Your task to perform on an android device: Show me popular games on the Play Store Image 0: 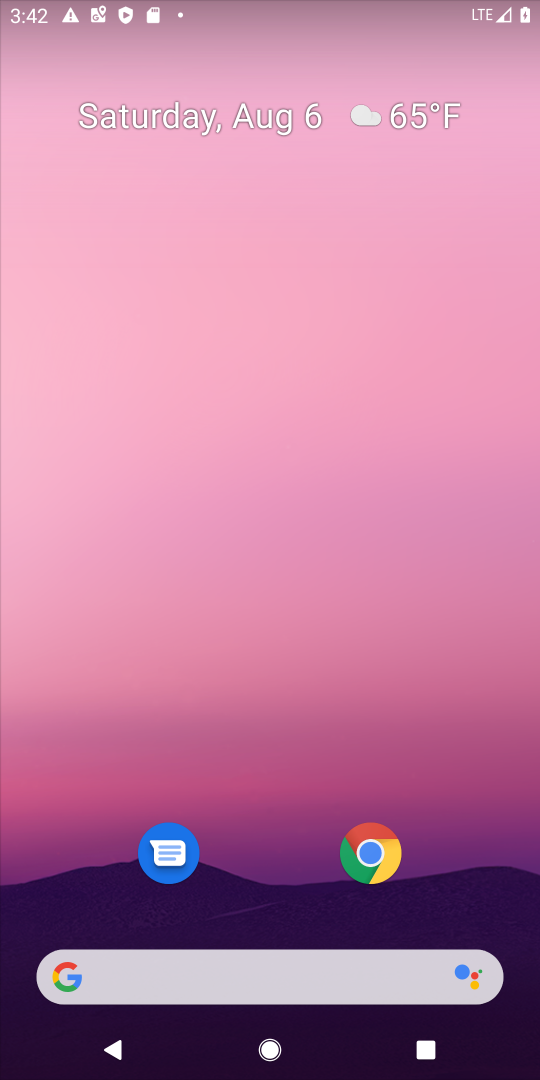
Step 0: drag from (230, 863) to (294, 91)
Your task to perform on an android device: Show me popular games on the Play Store Image 1: 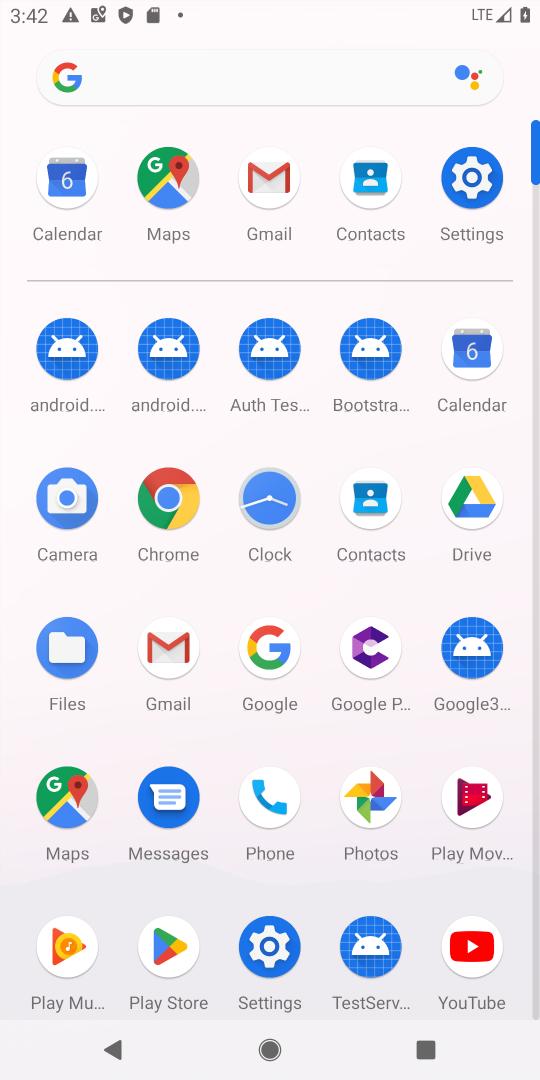
Step 1: click (182, 941)
Your task to perform on an android device: Show me popular games on the Play Store Image 2: 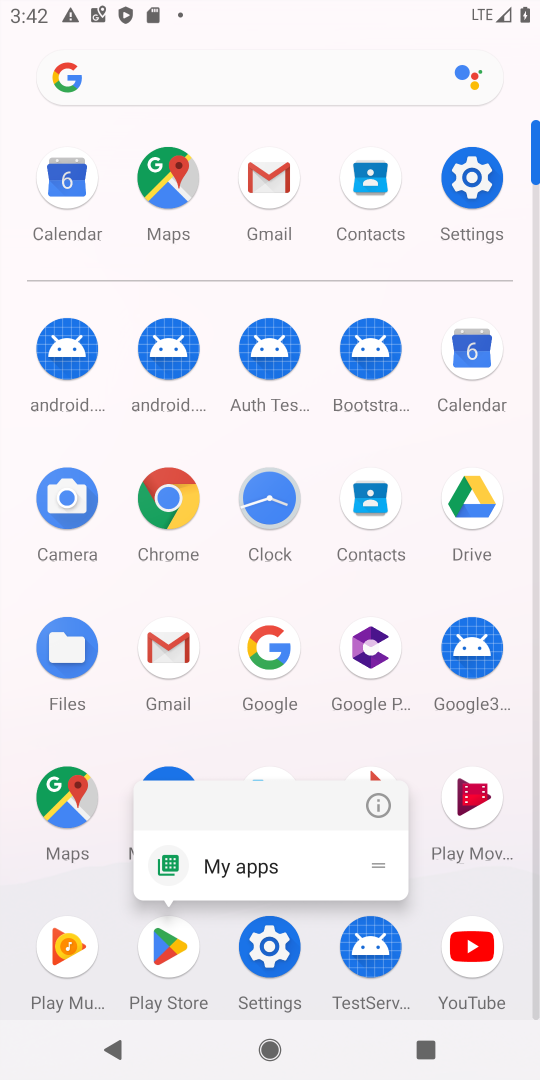
Step 2: click (168, 939)
Your task to perform on an android device: Show me popular games on the Play Store Image 3: 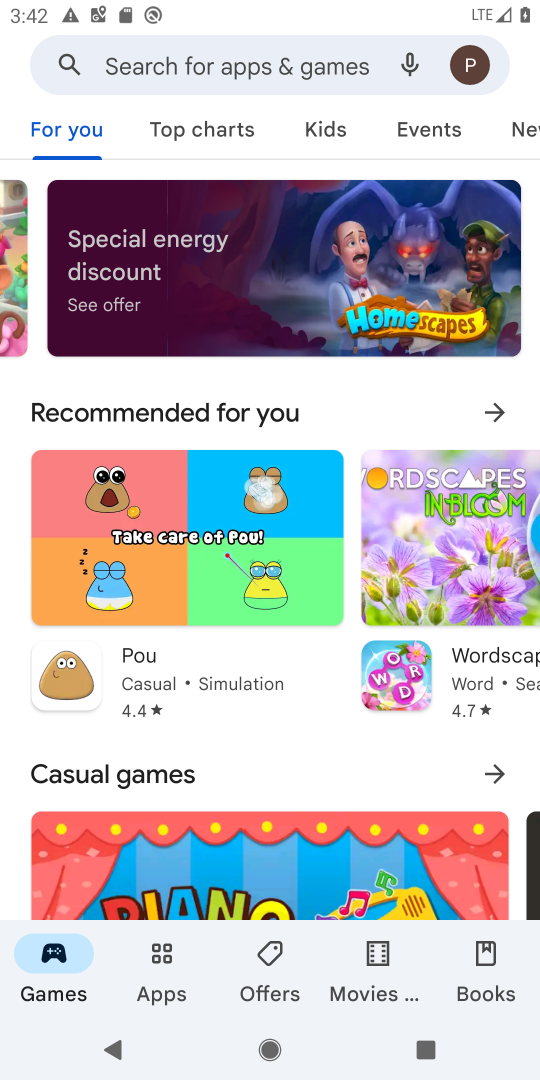
Step 3: drag from (284, 835) to (354, 193)
Your task to perform on an android device: Show me popular games on the Play Store Image 4: 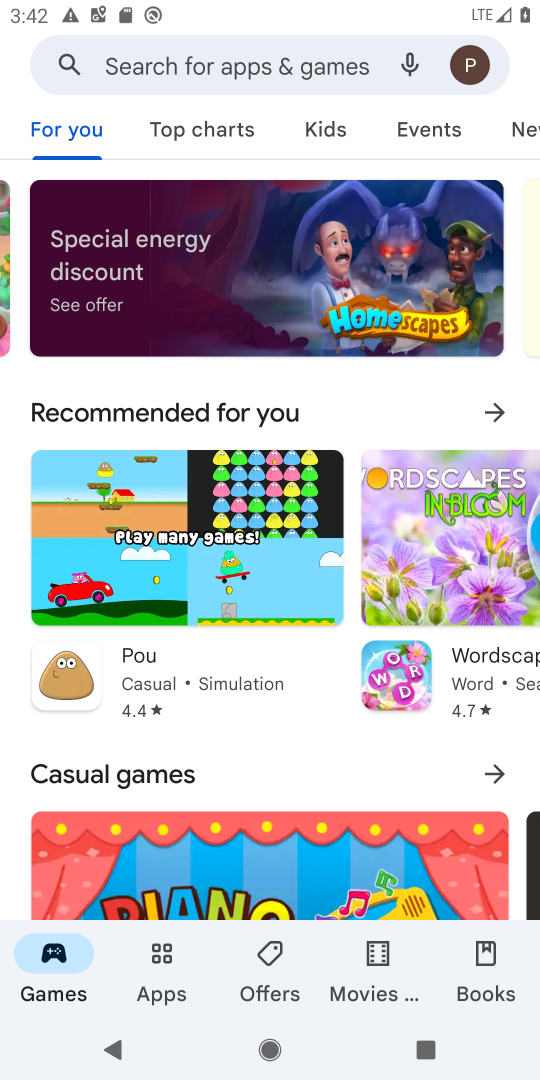
Step 4: drag from (186, 821) to (294, 119)
Your task to perform on an android device: Show me popular games on the Play Store Image 5: 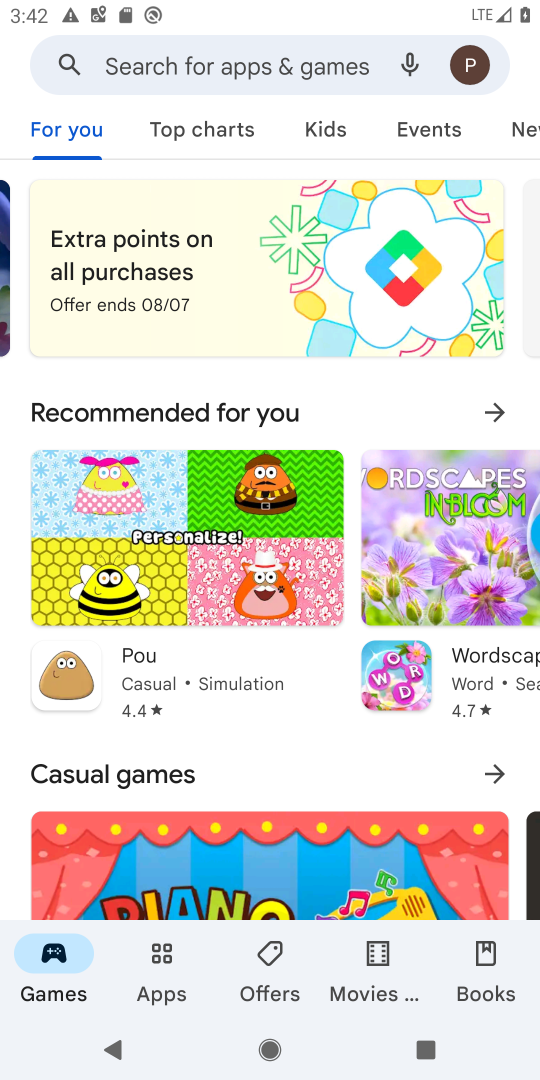
Step 5: drag from (8, 833) to (50, 231)
Your task to perform on an android device: Show me popular games on the Play Store Image 6: 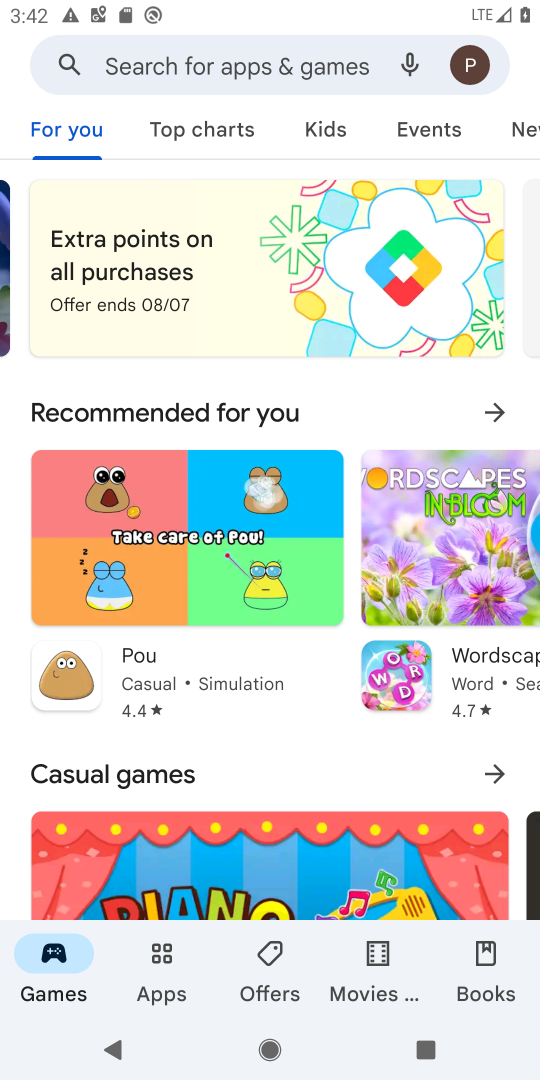
Step 6: drag from (19, 878) to (19, 210)
Your task to perform on an android device: Show me popular games on the Play Store Image 7: 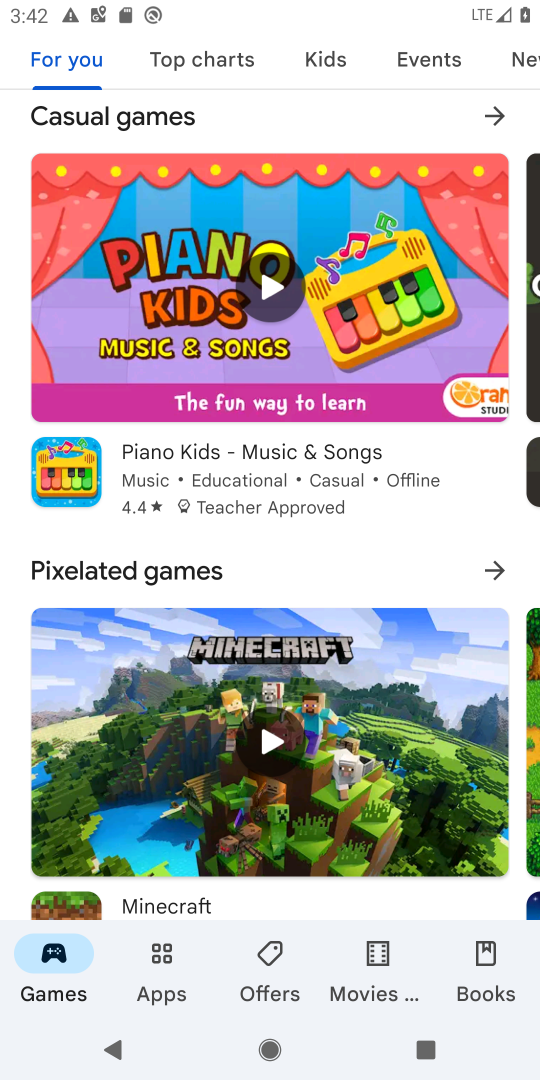
Step 7: drag from (27, 804) to (55, 254)
Your task to perform on an android device: Show me popular games on the Play Store Image 8: 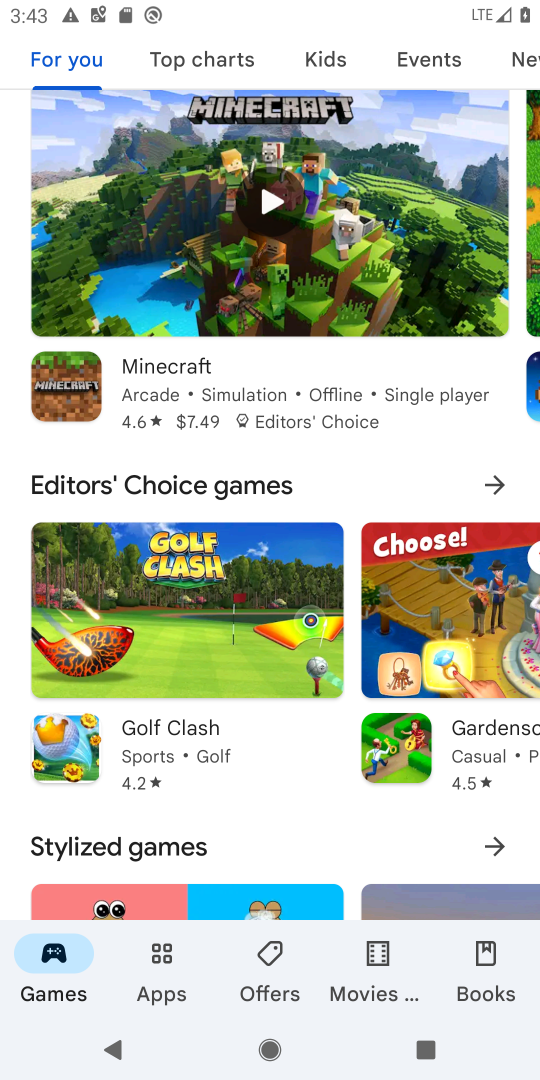
Step 8: drag from (6, 845) to (5, 247)
Your task to perform on an android device: Show me popular games on the Play Store Image 9: 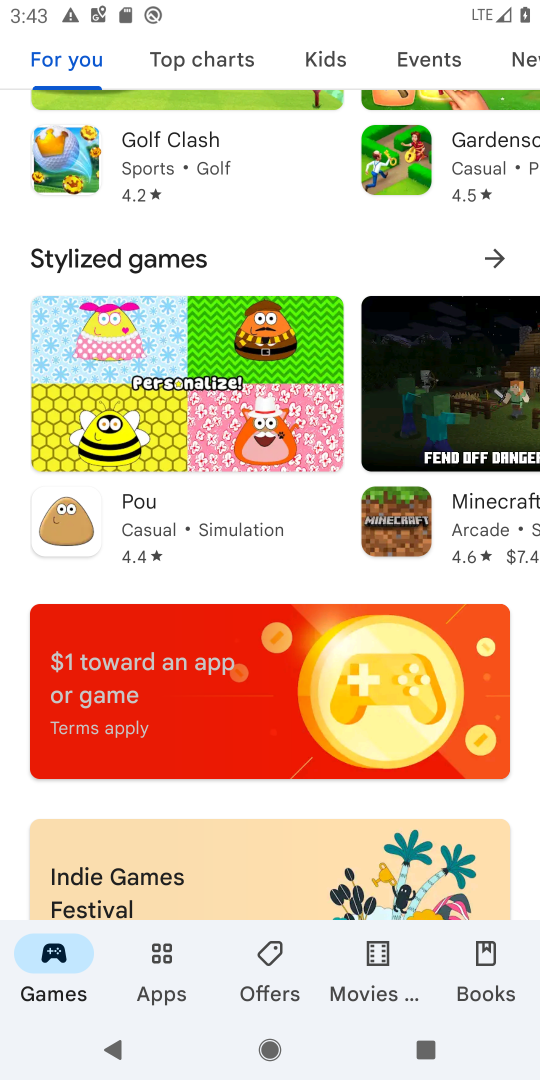
Step 9: drag from (6, 802) to (22, 372)
Your task to perform on an android device: Show me popular games on the Play Store Image 10: 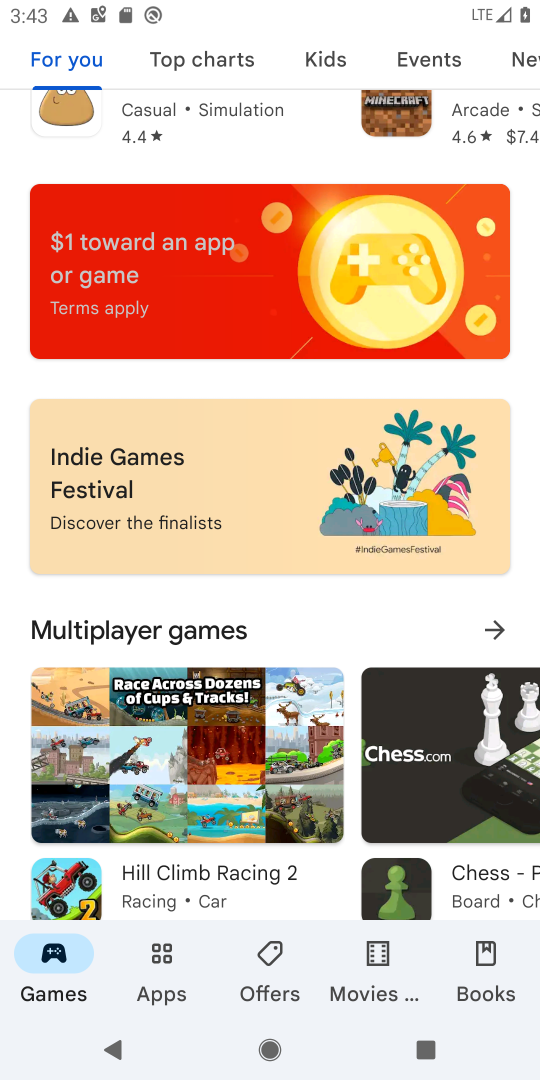
Step 10: drag from (11, 882) to (25, 234)
Your task to perform on an android device: Show me popular games on the Play Store Image 11: 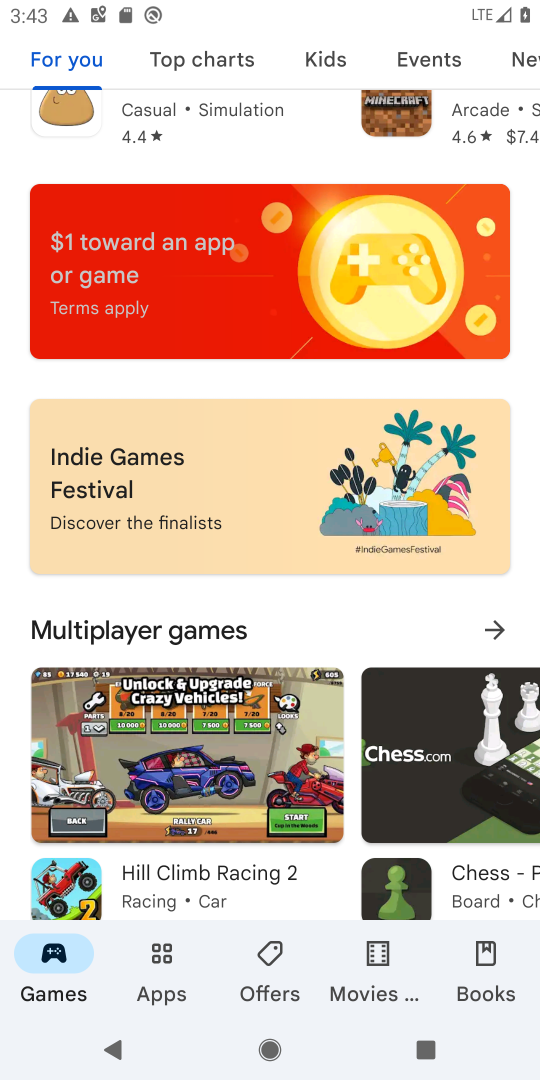
Step 11: drag from (1, 853) to (1, 167)
Your task to perform on an android device: Show me popular games on the Play Store Image 12: 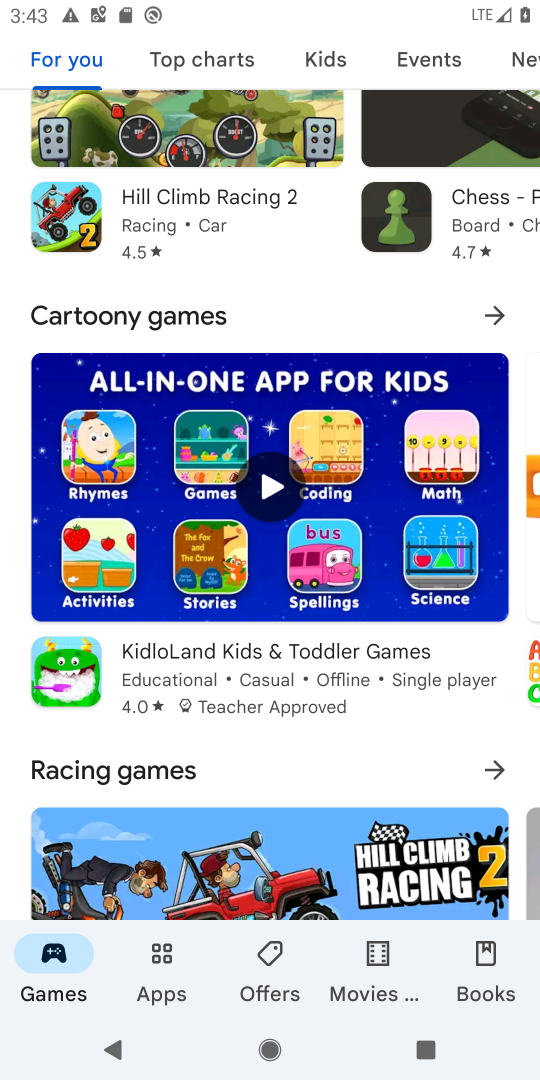
Step 12: drag from (16, 862) to (34, 151)
Your task to perform on an android device: Show me popular games on the Play Store Image 13: 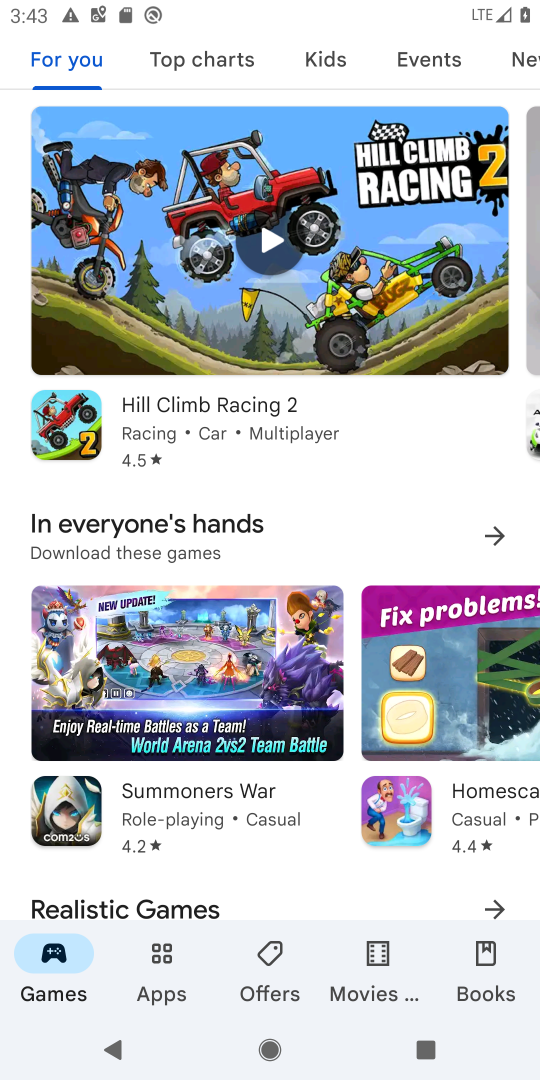
Step 13: drag from (18, 888) to (1, 165)
Your task to perform on an android device: Show me popular games on the Play Store Image 14: 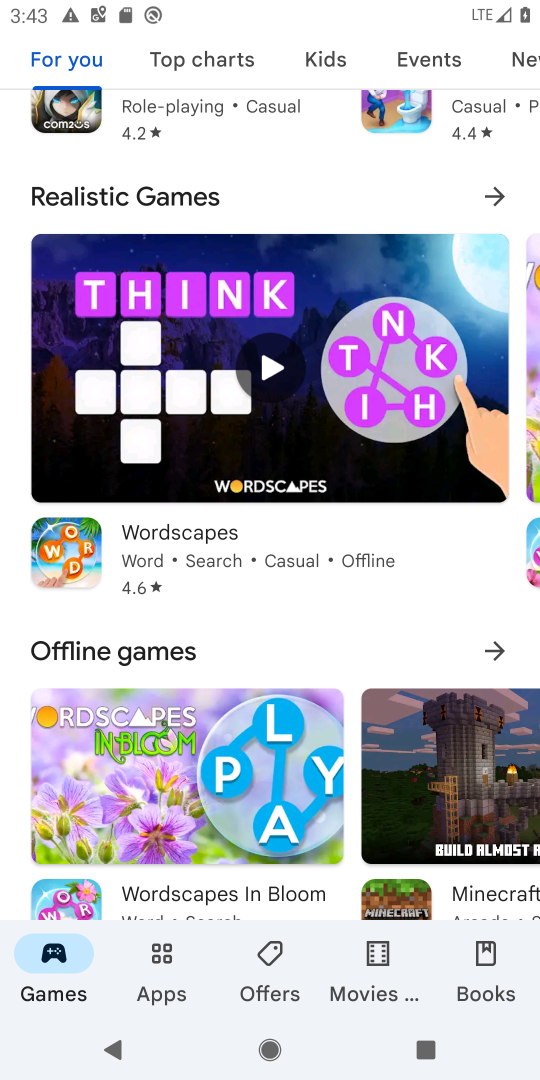
Step 14: drag from (10, 858) to (26, 182)
Your task to perform on an android device: Show me popular games on the Play Store Image 15: 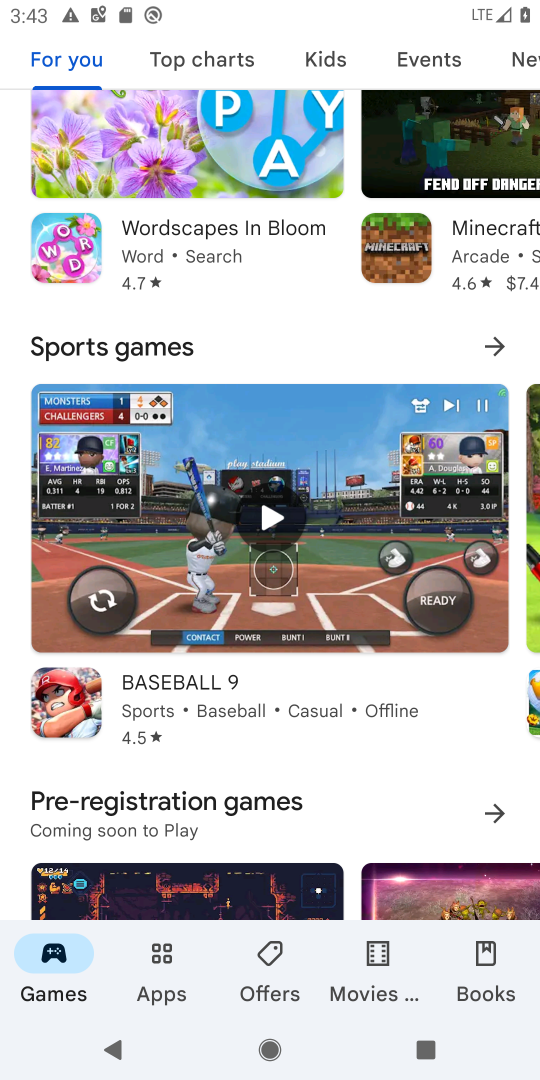
Step 15: drag from (10, 892) to (2, 254)
Your task to perform on an android device: Show me popular games on the Play Store Image 16: 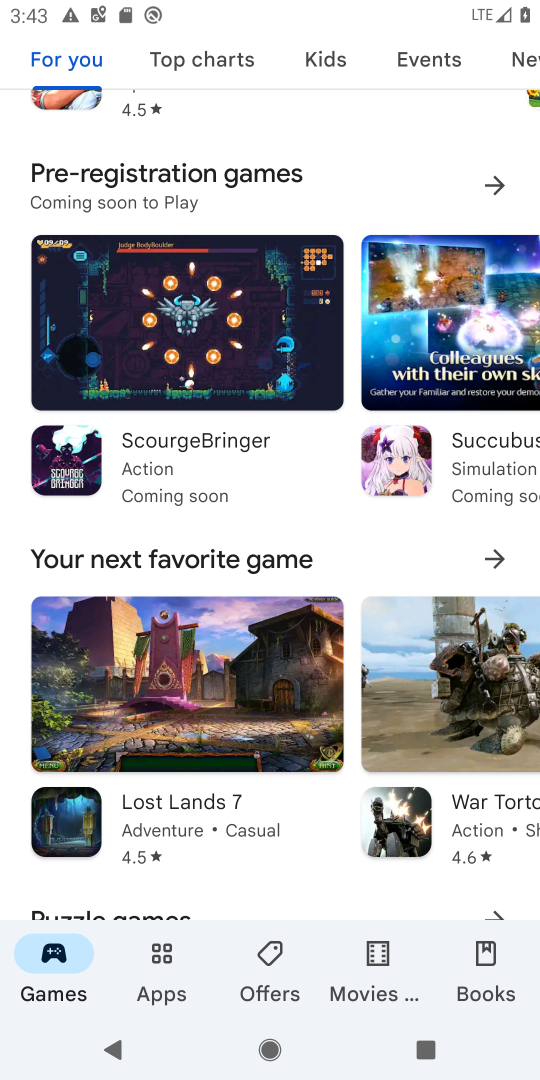
Step 16: drag from (11, 897) to (43, 174)
Your task to perform on an android device: Show me popular games on the Play Store Image 17: 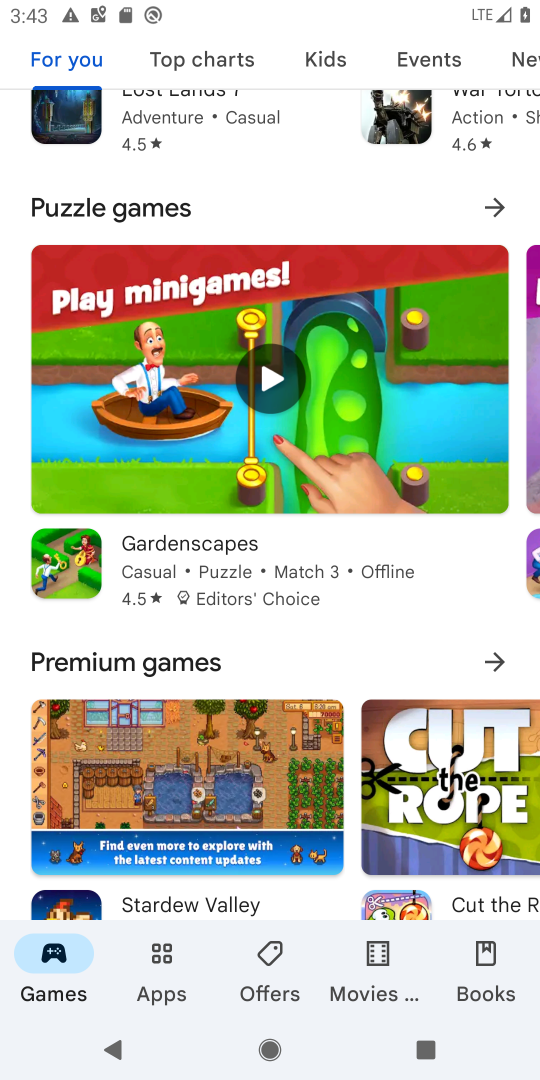
Step 17: drag from (12, 894) to (25, 201)
Your task to perform on an android device: Show me popular games on the Play Store Image 18: 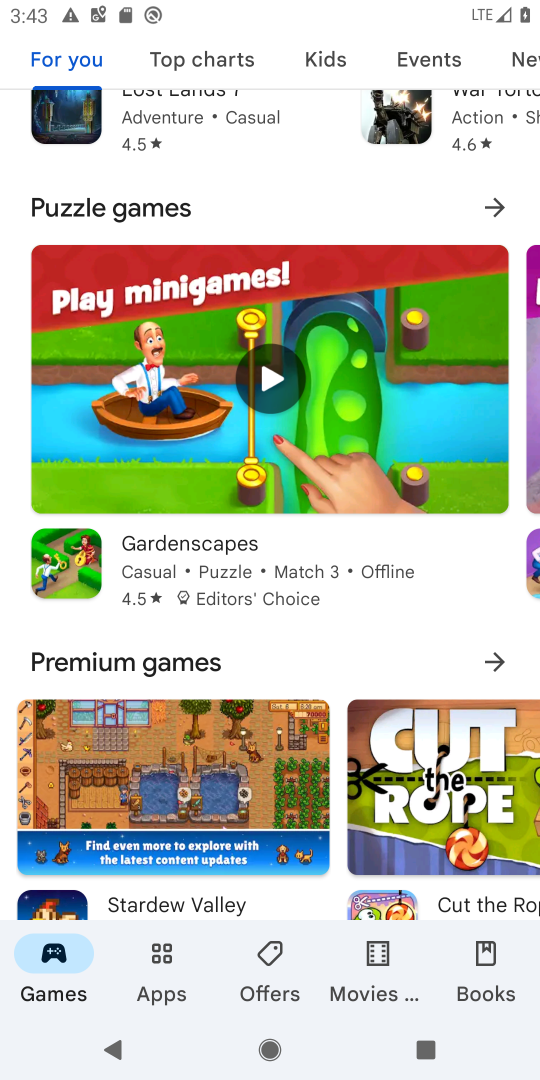
Step 18: drag from (14, 827) to (17, 293)
Your task to perform on an android device: Show me popular games on the Play Store Image 19: 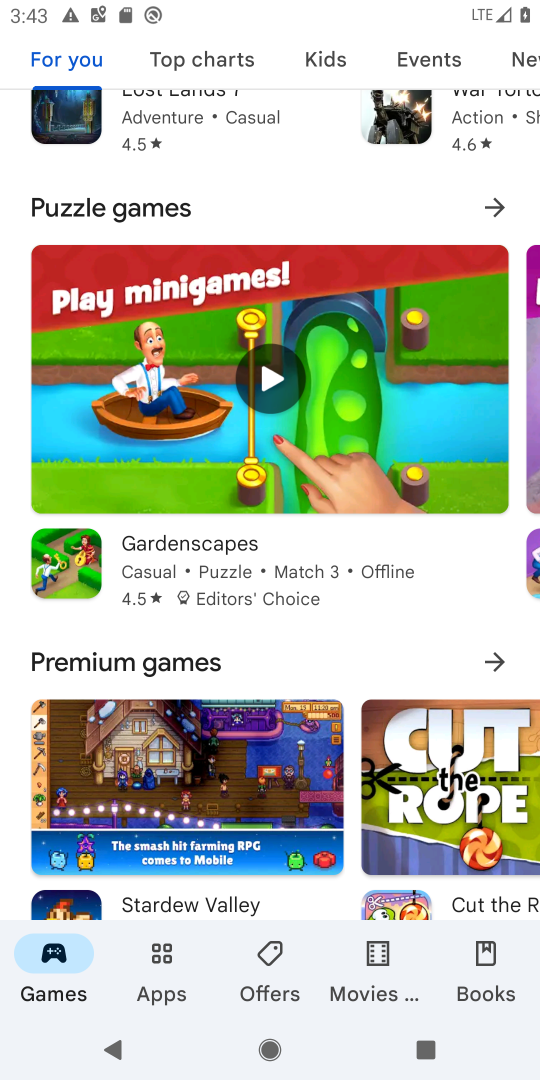
Step 19: drag from (13, 805) to (34, 180)
Your task to perform on an android device: Show me popular games on the Play Store Image 20: 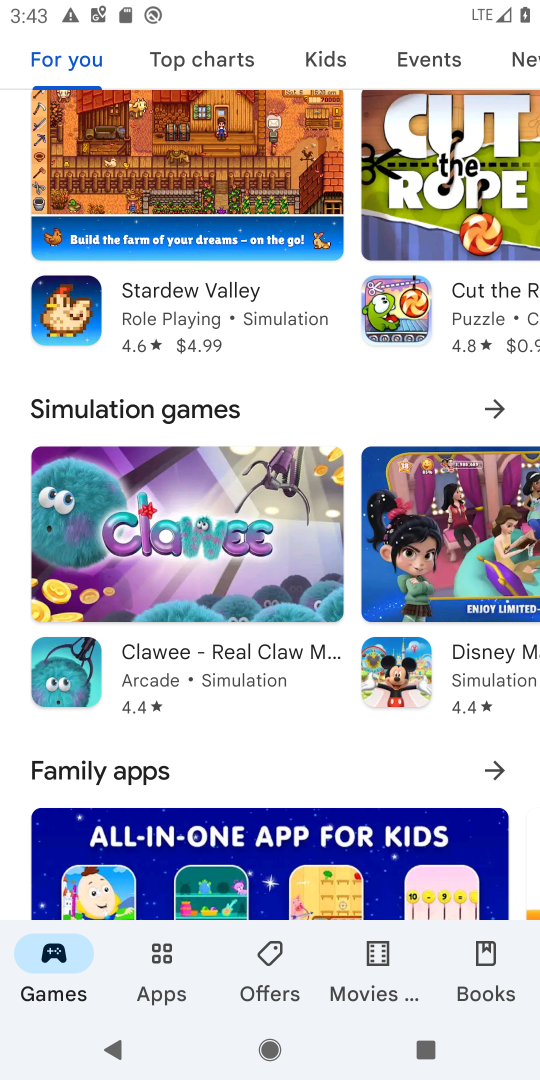
Step 20: drag from (14, 862) to (8, 193)
Your task to perform on an android device: Show me popular games on the Play Store Image 21: 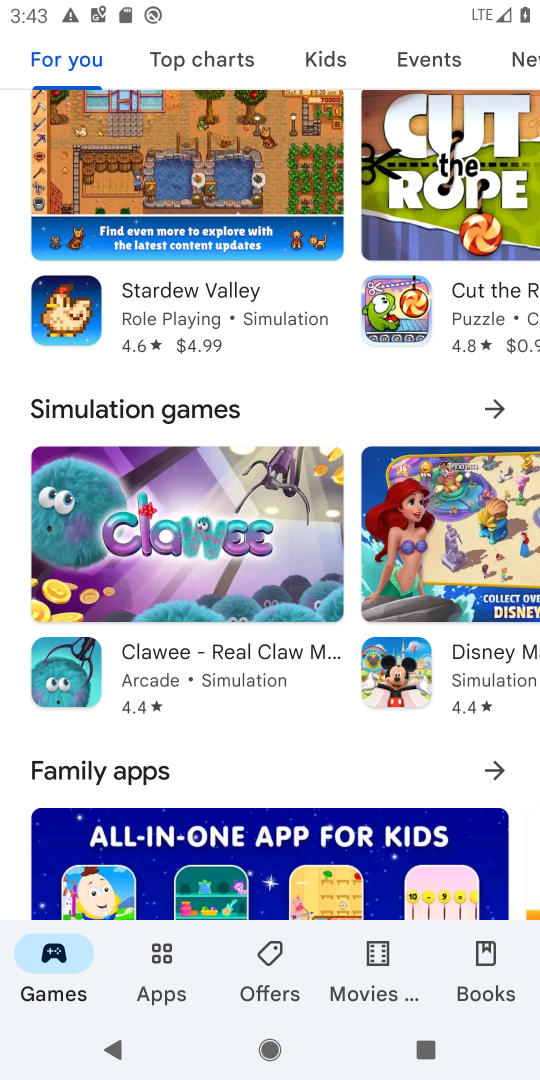
Step 21: drag from (7, 874) to (2, 171)
Your task to perform on an android device: Show me popular games on the Play Store Image 22: 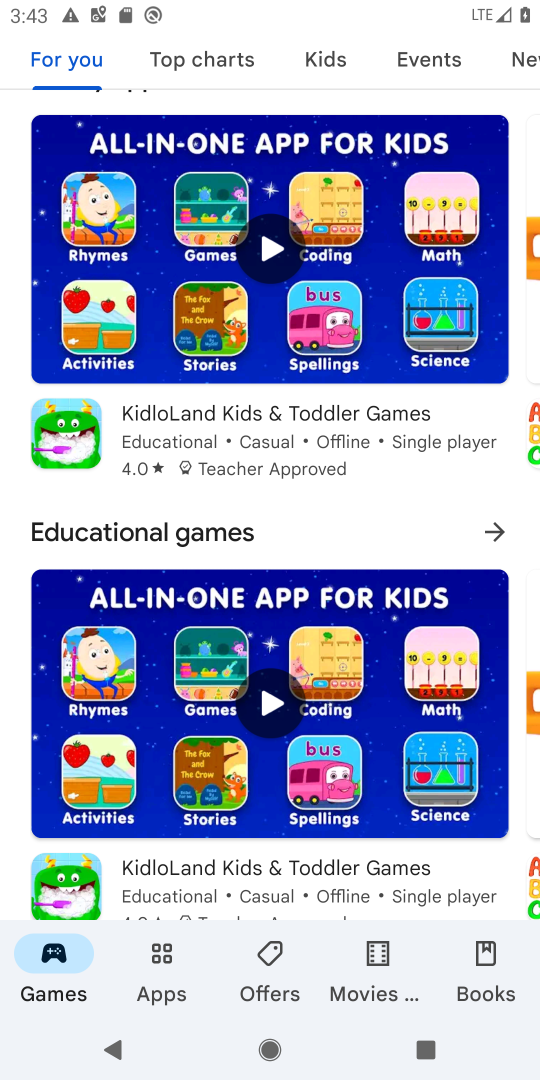
Step 22: drag from (10, 848) to (17, 187)
Your task to perform on an android device: Show me popular games on the Play Store Image 23: 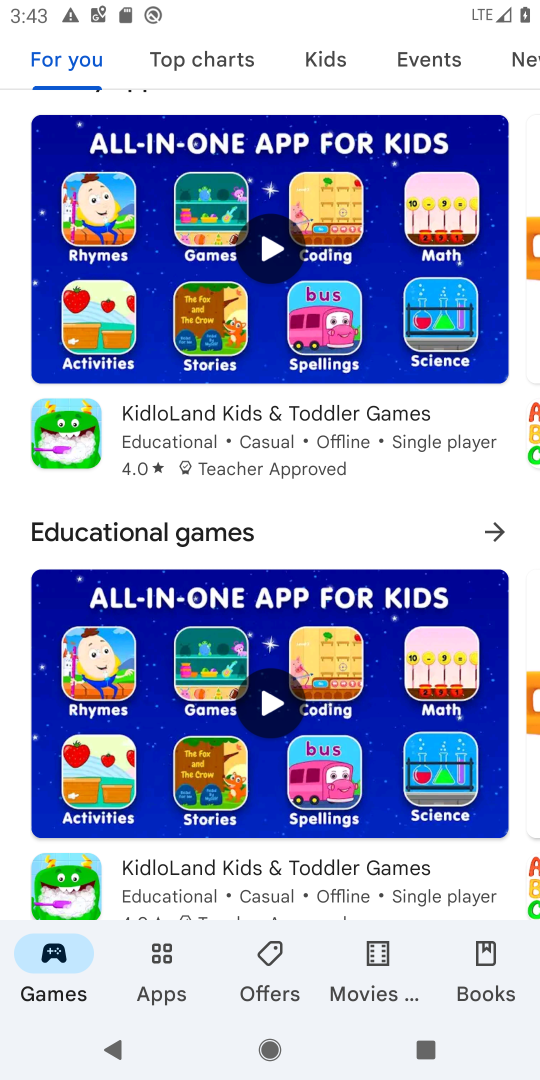
Step 23: drag from (15, 845) to (25, 147)
Your task to perform on an android device: Show me popular games on the Play Store Image 24: 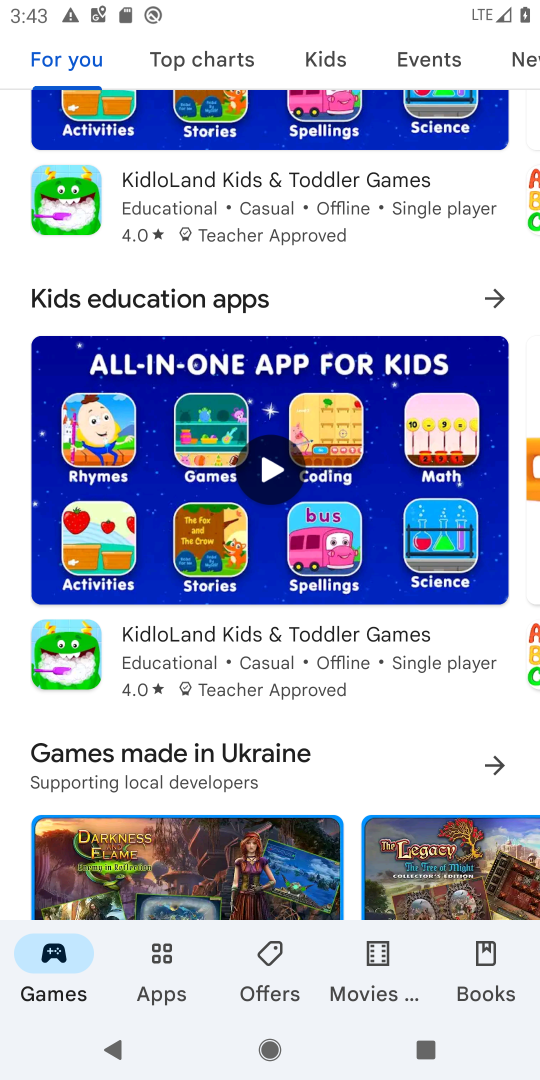
Step 24: drag from (5, 877) to (20, 168)
Your task to perform on an android device: Show me popular games on the Play Store Image 25: 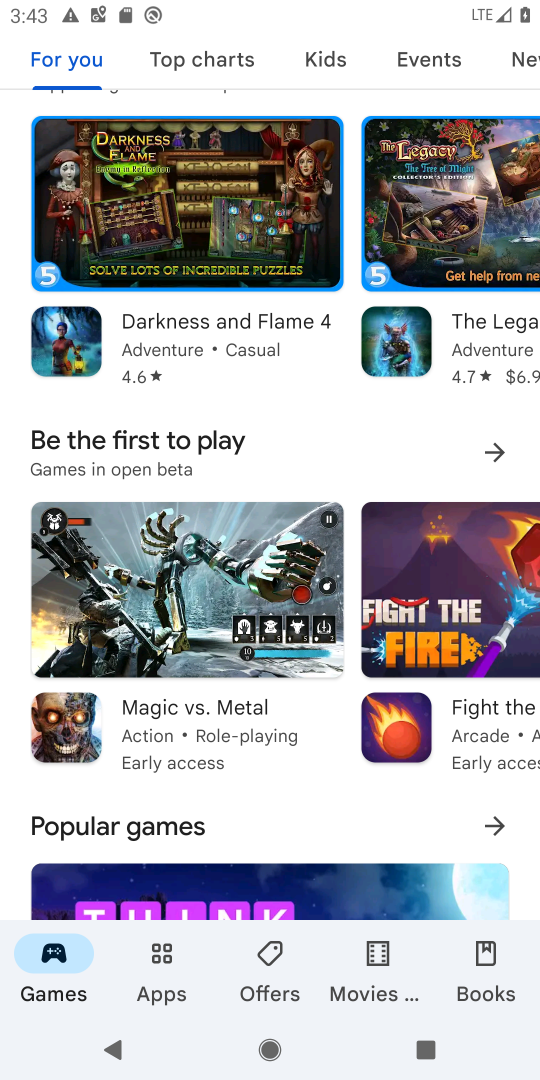
Step 25: click (497, 816)
Your task to perform on an android device: Show me popular games on the Play Store Image 26: 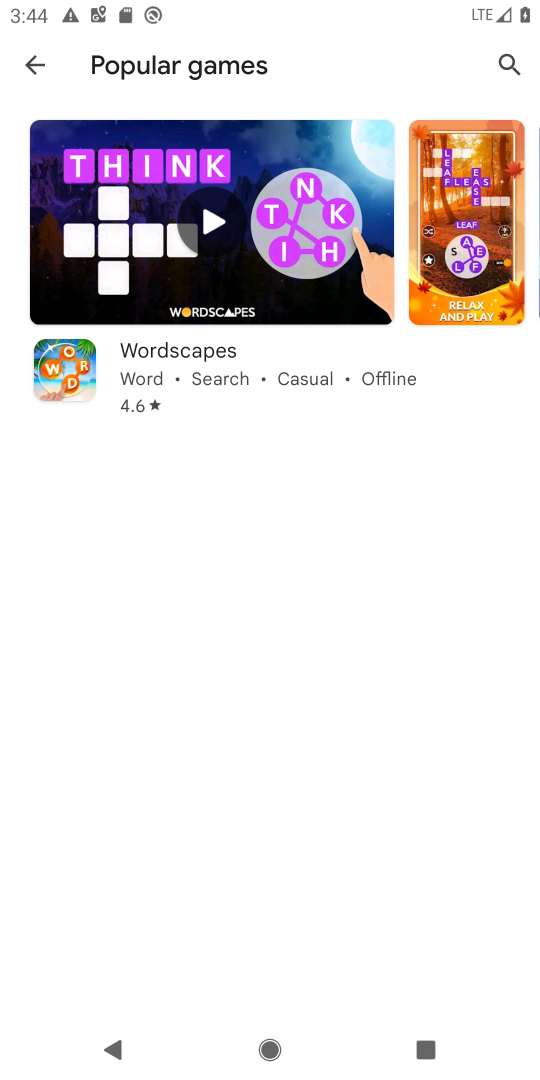
Step 26: task complete